Your task to perform on an android device: turn off improve location accuracy Image 0: 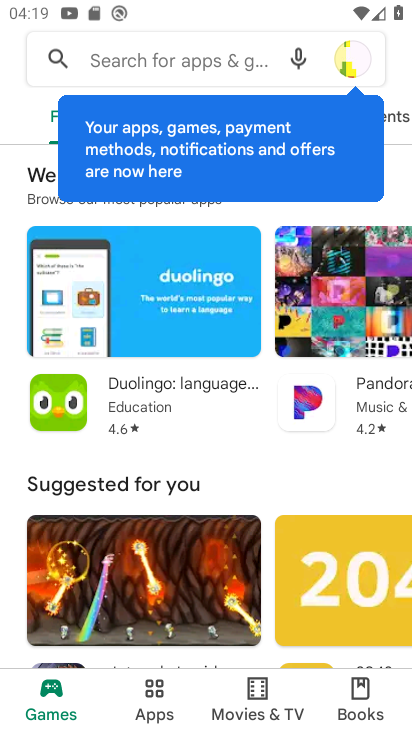
Step 0: press home button
Your task to perform on an android device: turn off improve location accuracy Image 1: 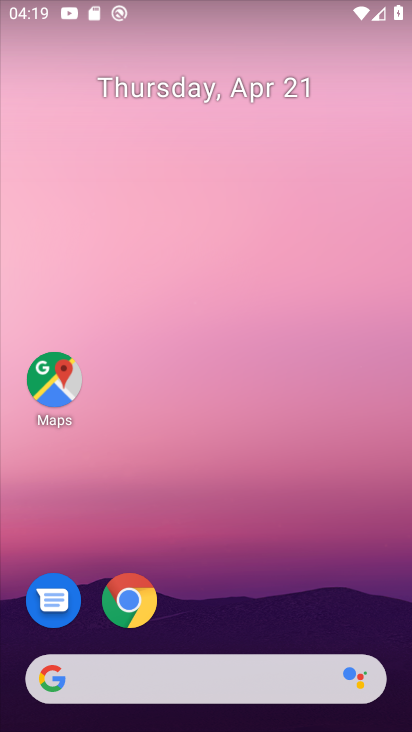
Step 1: drag from (363, 625) to (407, 73)
Your task to perform on an android device: turn off improve location accuracy Image 2: 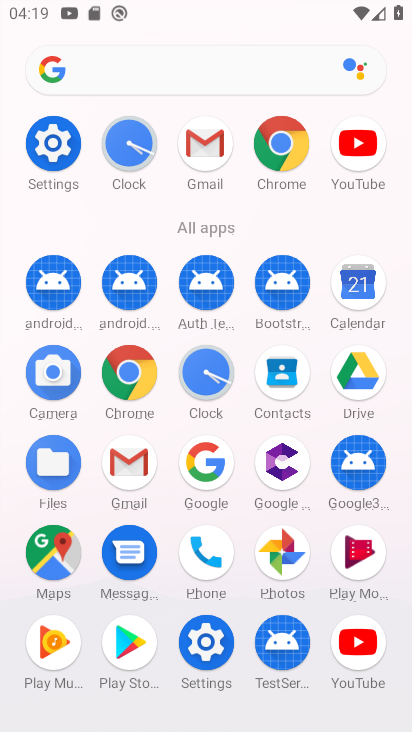
Step 2: click (59, 148)
Your task to perform on an android device: turn off improve location accuracy Image 3: 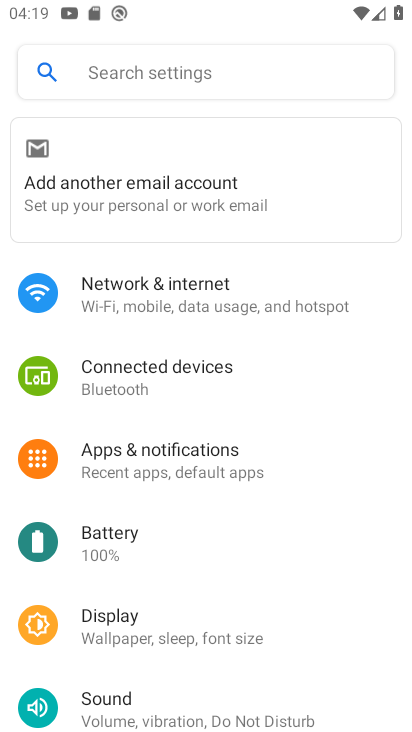
Step 3: drag from (299, 639) to (302, 511)
Your task to perform on an android device: turn off improve location accuracy Image 4: 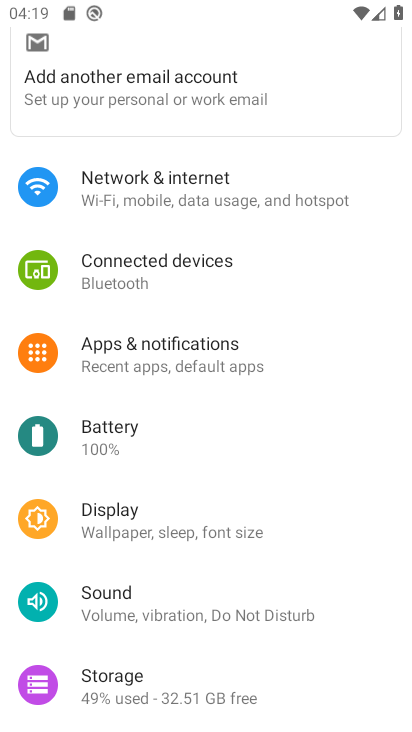
Step 4: drag from (340, 613) to (332, 438)
Your task to perform on an android device: turn off improve location accuracy Image 5: 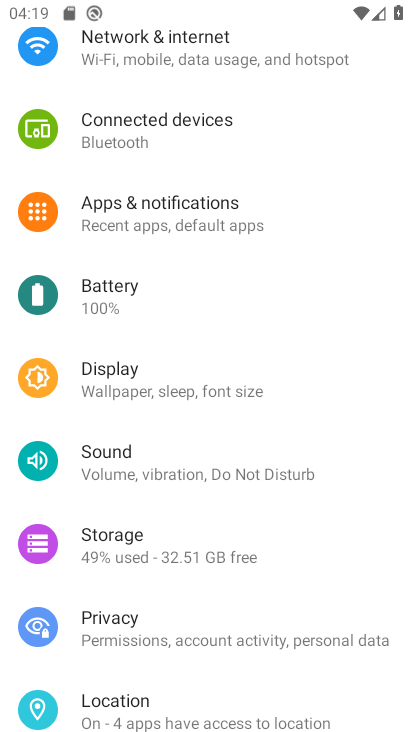
Step 5: click (111, 703)
Your task to perform on an android device: turn off improve location accuracy Image 6: 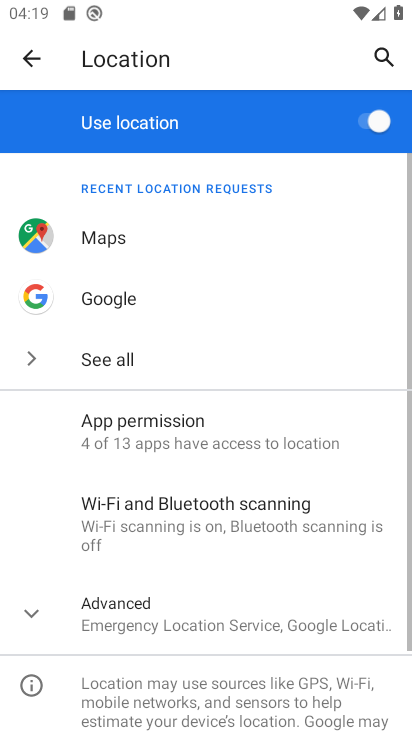
Step 6: click (30, 617)
Your task to perform on an android device: turn off improve location accuracy Image 7: 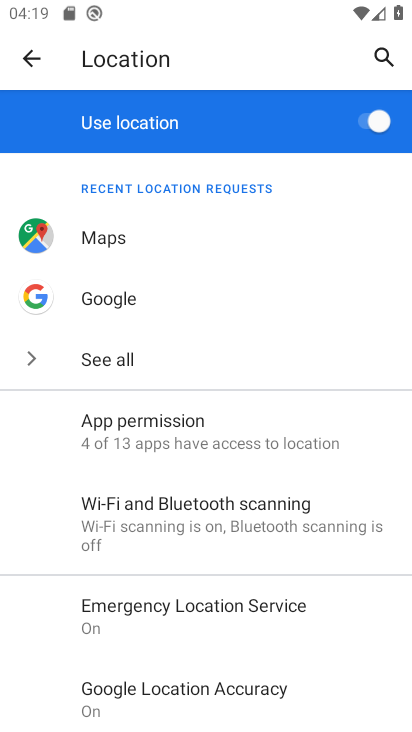
Step 7: click (184, 693)
Your task to perform on an android device: turn off improve location accuracy Image 8: 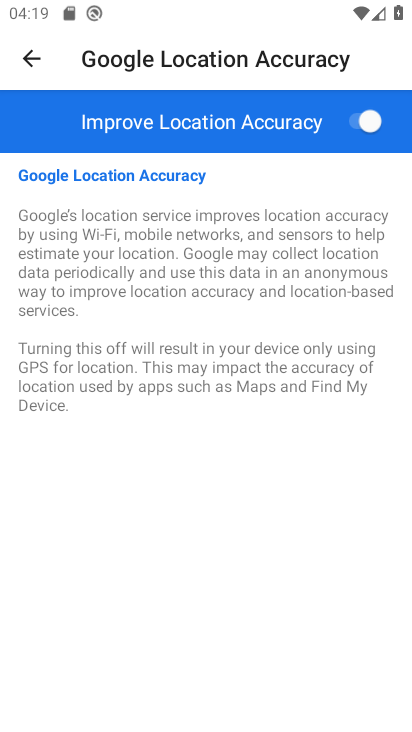
Step 8: click (357, 116)
Your task to perform on an android device: turn off improve location accuracy Image 9: 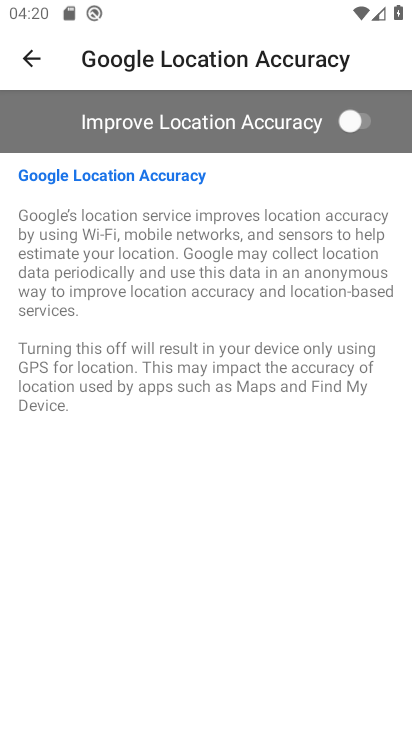
Step 9: task complete